Your task to perform on an android device: turn on priority inbox in the gmail app Image 0: 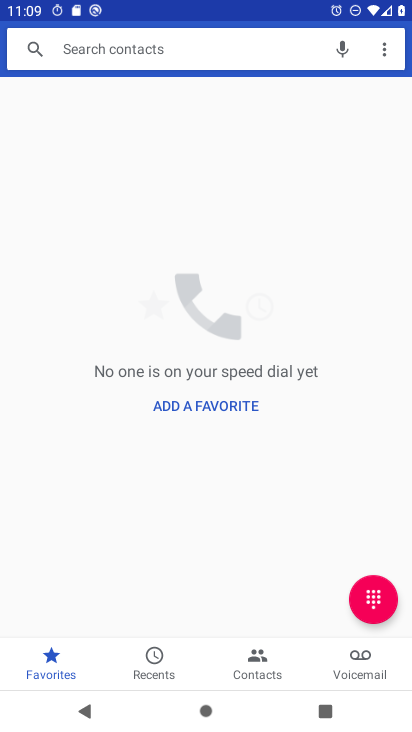
Step 0: press back button
Your task to perform on an android device: turn on priority inbox in the gmail app Image 1: 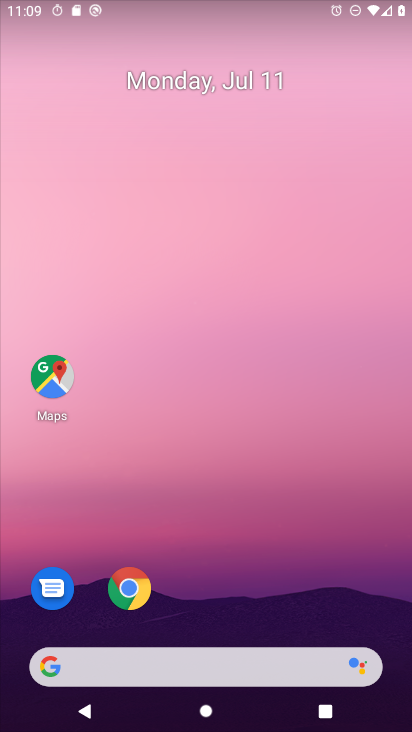
Step 1: drag from (274, 548) to (328, 13)
Your task to perform on an android device: turn on priority inbox in the gmail app Image 2: 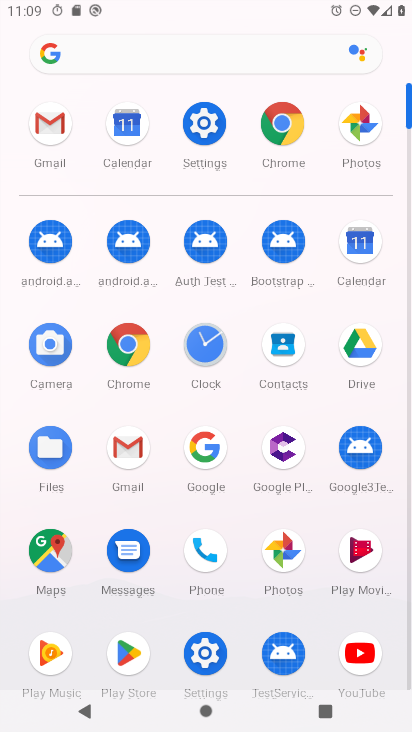
Step 2: click (120, 459)
Your task to perform on an android device: turn on priority inbox in the gmail app Image 3: 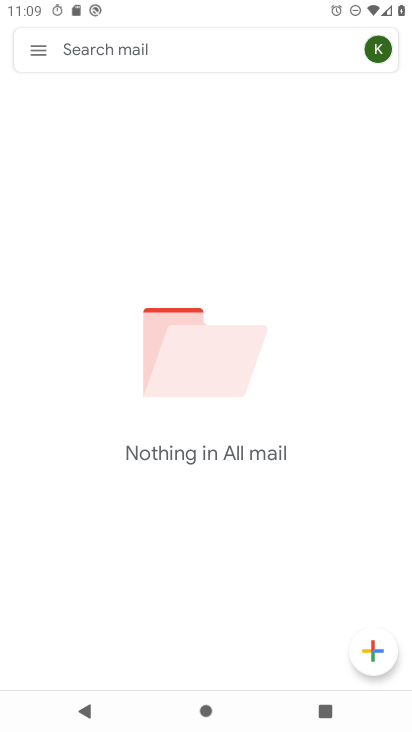
Step 3: click (34, 50)
Your task to perform on an android device: turn on priority inbox in the gmail app Image 4: 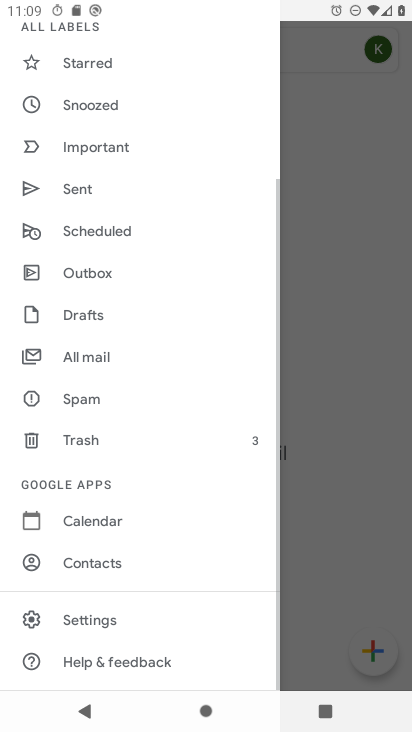
Step 4: click (97, 610)
Your task to perform on an android device: turn on priority inbox in the gmail app Image 5: 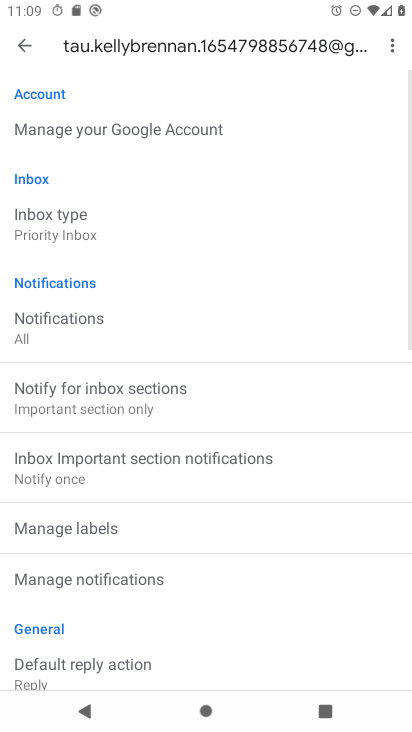
Step 5: click (76, 214)
Your task to perform on an android device: turn on priority inbox in the gmail app Image 6: 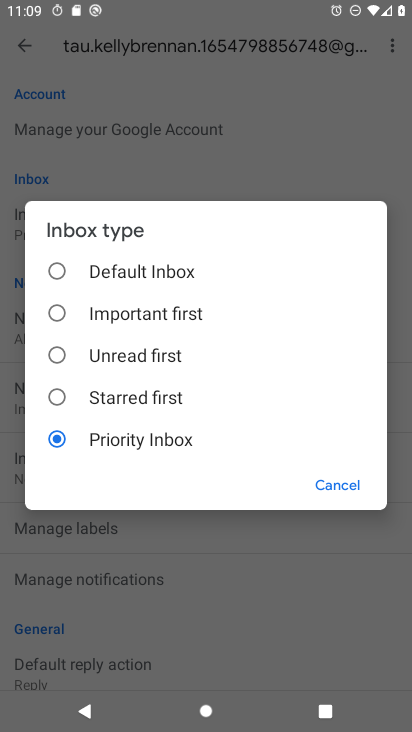
Step 6: click (64, 443)
Your task to perform on an android device: turn on priority inbox in the gmail app Image 7: 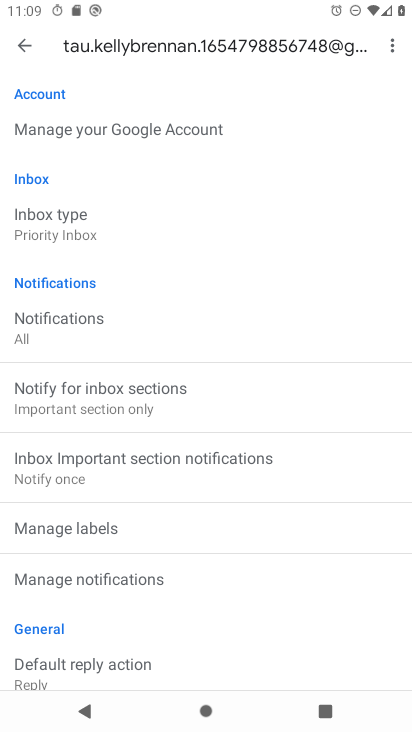
Step 7: task complete